Your task to perform on an android device: check the backup settings in the google photos Image 0: 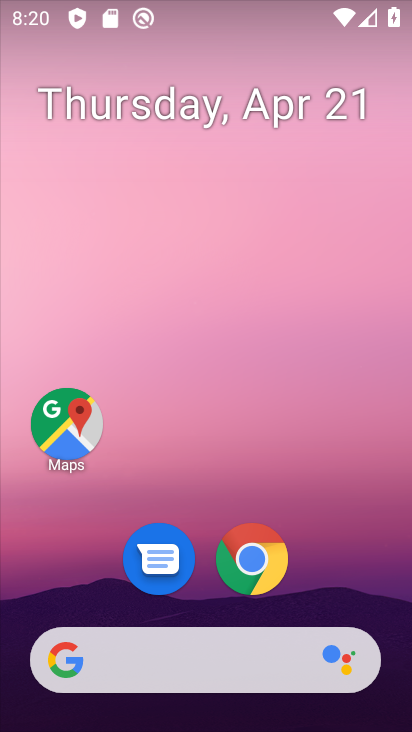
Step 0: drag from (299, 592) to (365, 200)
Your task to perform on an android device: check the backup settings in the google photos Image 1: 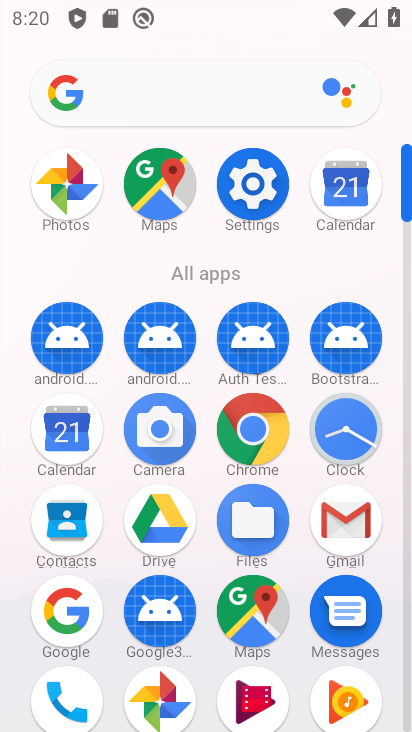
Step 1: click (169, 685)
Your task to perform on an android device: check the backup settings in the google photos Image 2: 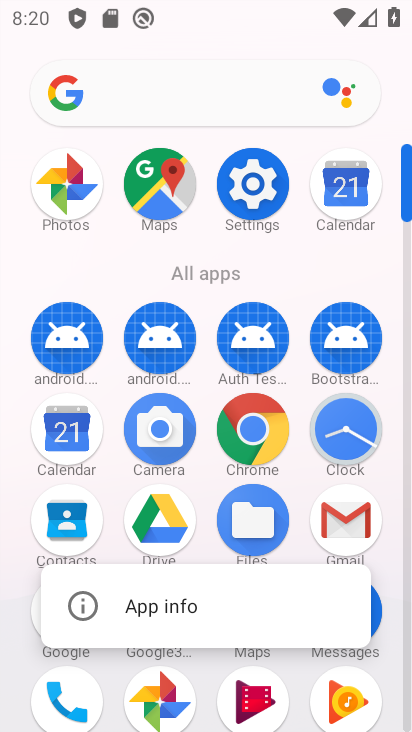
Step 2: click (164, 691)
Your task to perform on an android device: check the backup settings in the google photos Image 3: 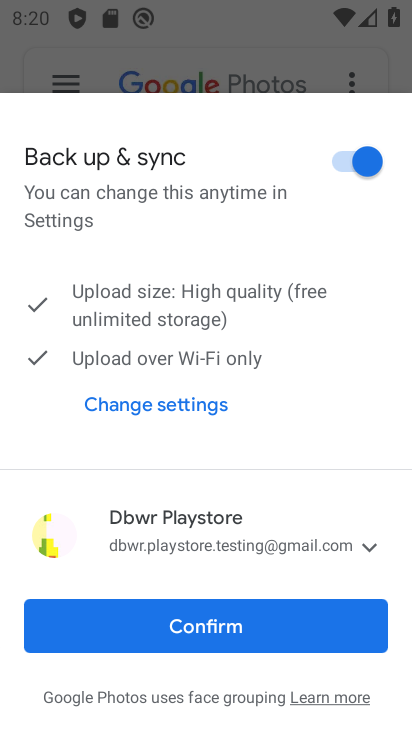
Step 3: click (198, 631)
Your task to perform on an android device: check the backup settings in the google photos Image 4: 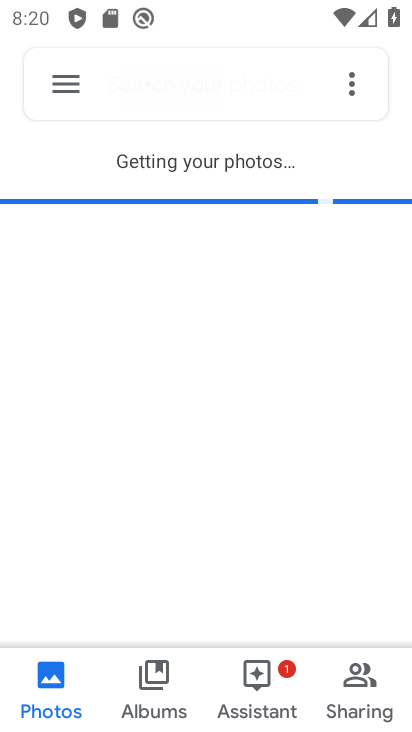
Step 4: click (75, 87)
Your task to perform on an android device: check the backup settings in the google photos Image 5: 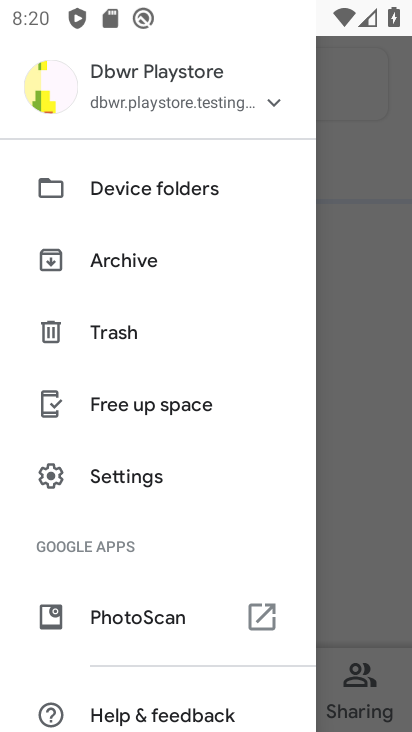
Step 5: click (114, 483)
Your task to perform on an android device: check the backup settings in the google photos Image 6: 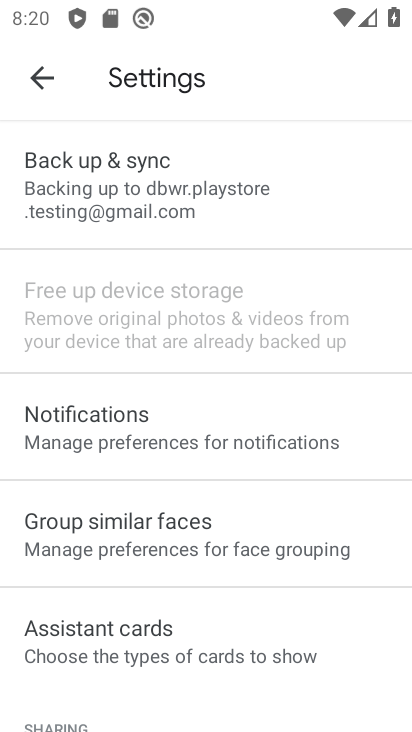
Step 6: click (187, 196)
Your task to perform on an android device: check the backup settings in the google photos Image 7: 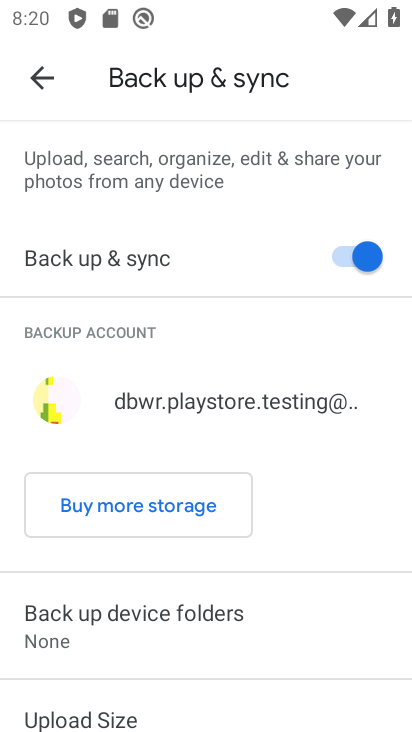
Step 7: task complete